Your task to perform on an android device: choose inbox layout in the gmail app Image 0: 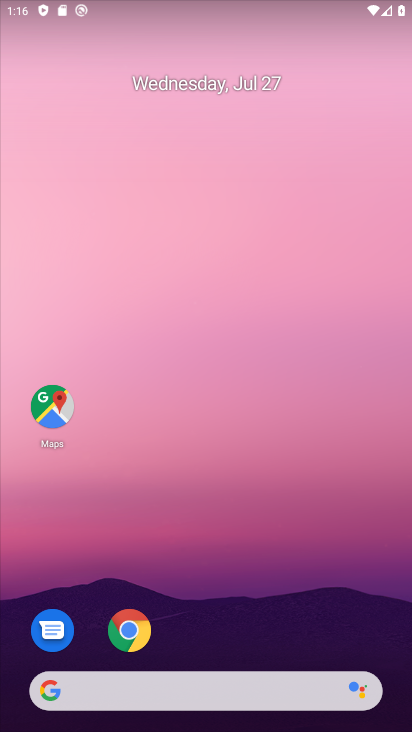
Step 0: drag from (400, 642) to (308, 80)
Your task to perform on an android device: choose inbox layout in the gmail app Image 1: 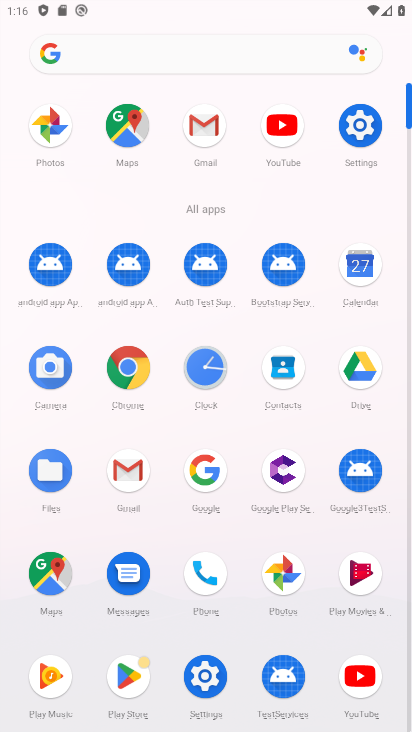
Step 1: click (128, 470)
Your task to perform on an android device: choose inbox layout in the gmail app Image 2: 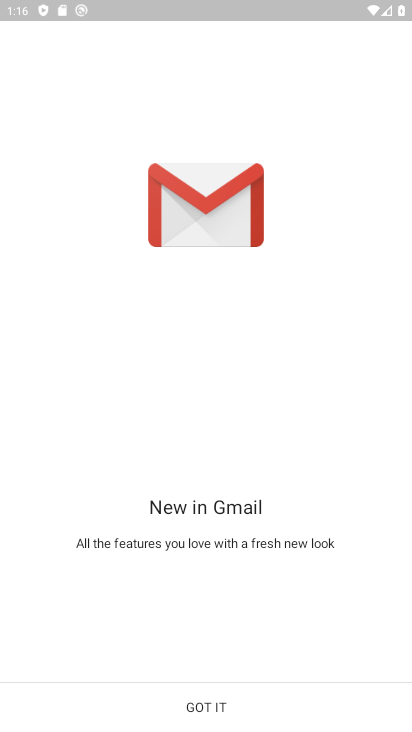
Step 2: click (204, 707)
Your task to perform on an android device: choose inbox layout in the gmail app Image 3: 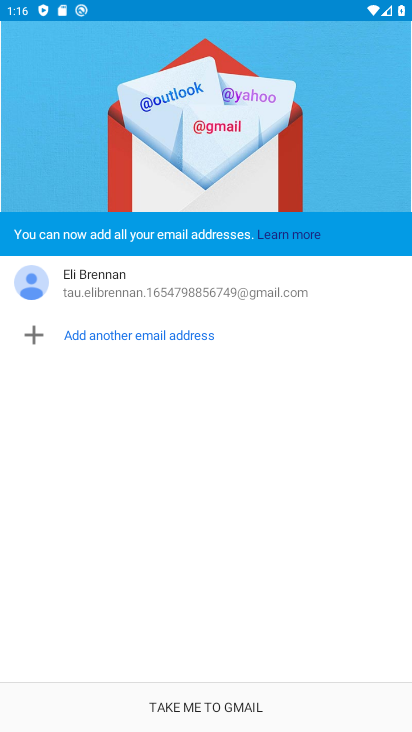
Step 3: click (212, 707)
Your task to perform on an android device: choose inbox layout in the gmail app Image 4: 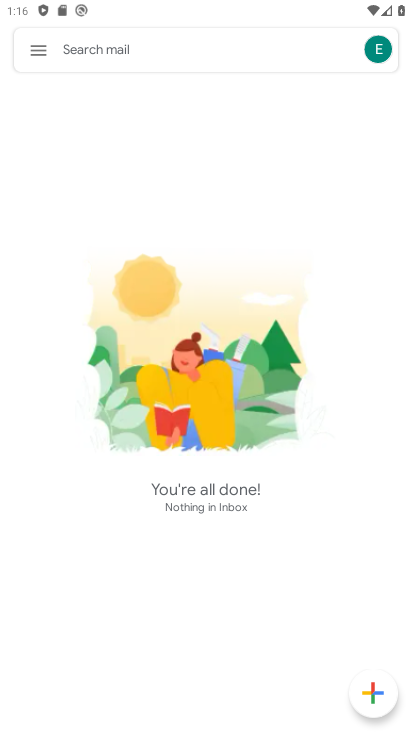
Step 4: click (39, 51)
Your task to perform on an android device: choose inbox layout in the gmail app Image 5: 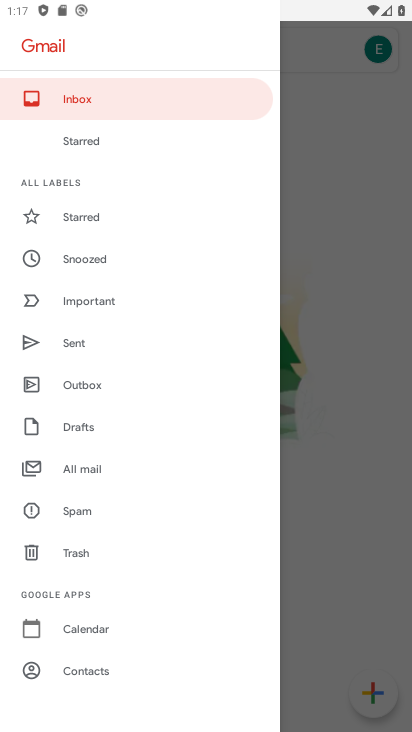
Step 5: drag from (192, 639) to (203, 340)
Your task to perform on an android device: choose inbox layout in the gmail app Image 6: 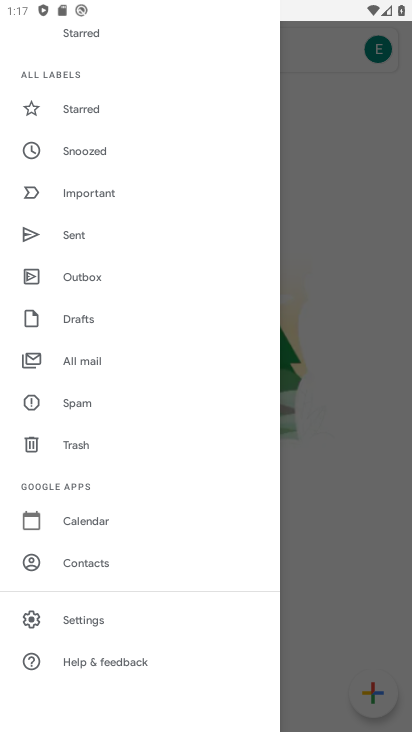
Step 6: click (75, 615)
Your task to perform on an android device: choose inbox layout in the gmail app Image 7: 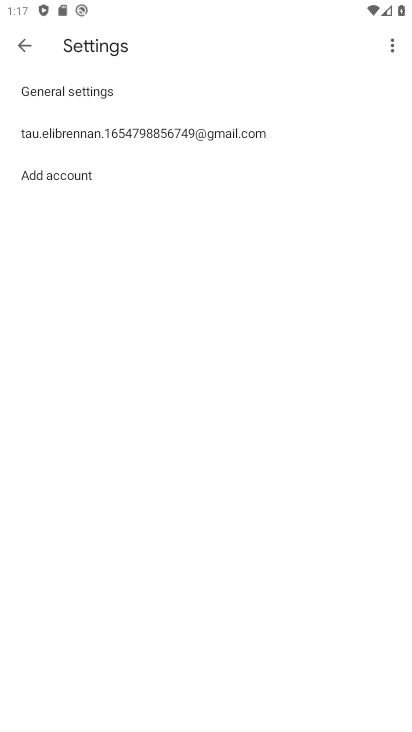
Step 7: click (97, 128)
Your task to perform on an android device: choose inbox layout in the gmail app Image 8: 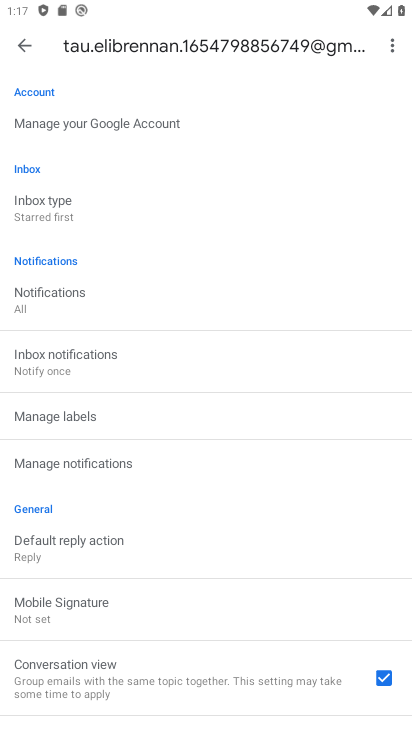
Step 8: click (39, 205)
Your task to perform on an android device: choose inbox layout in the gmail app Image 9: 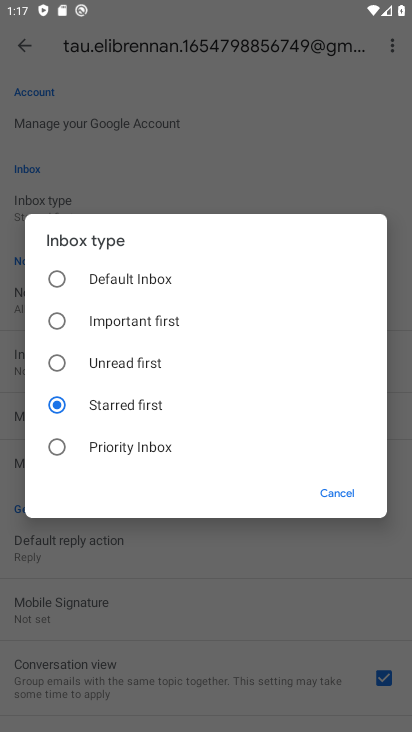
Step 9: click (53, 276)
Your task to perform on an android device: choose inbox layout in the gmail app Image 10: 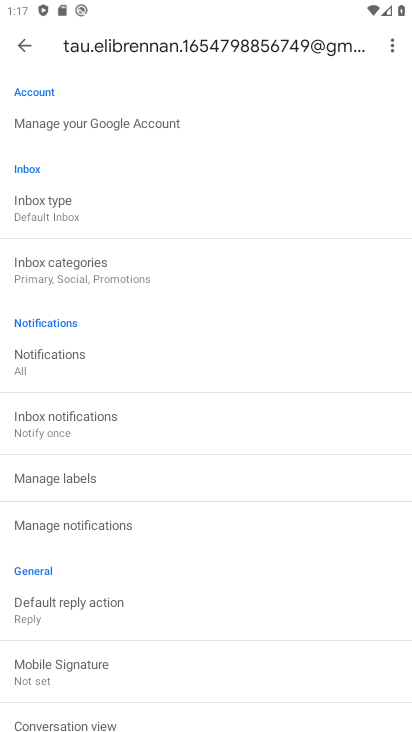
Step 10: task complete